Your task to perform on an android device: Open settings Image 0: 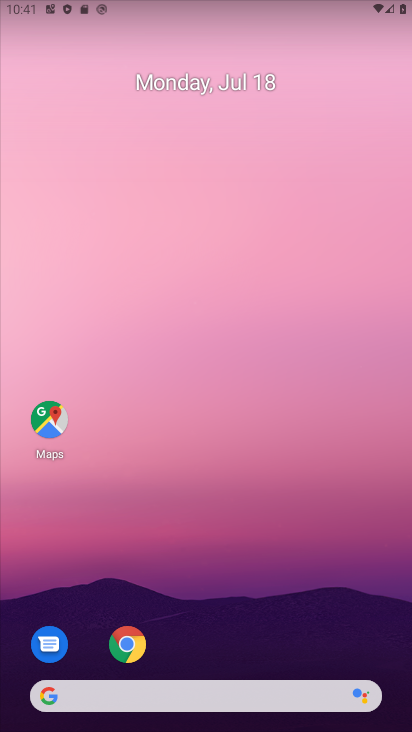
Step 0: drag from (194, 585) to (216, 127)
Your task to perform on an android device: Open settings Image 1: 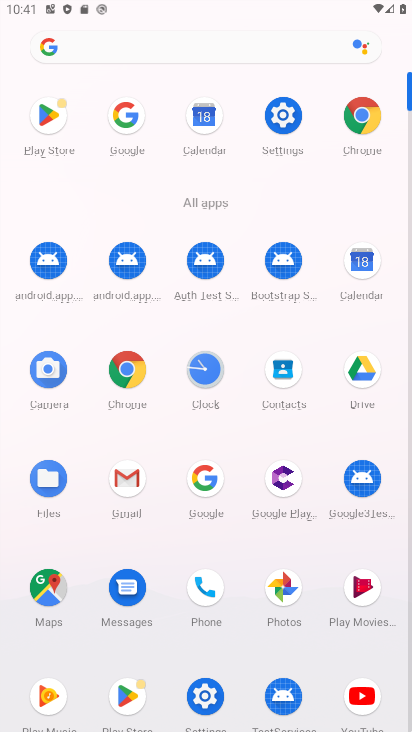
Step 1: click (289, 111)
Your task to perform on an android device: Open settings Image 2: 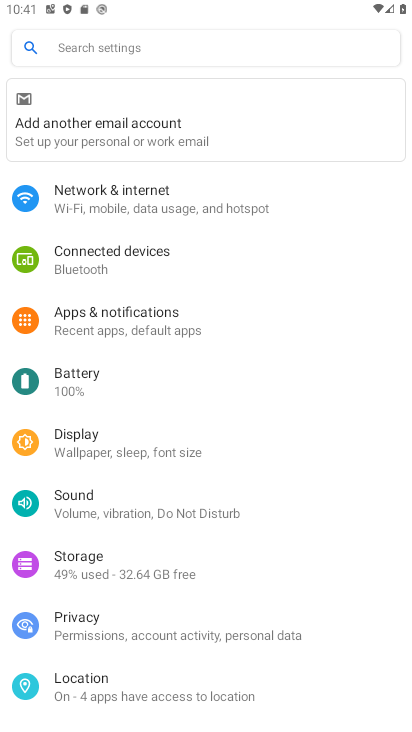
Step 2: task complete